Your task to perform on an android device: change the clock style Image 0: 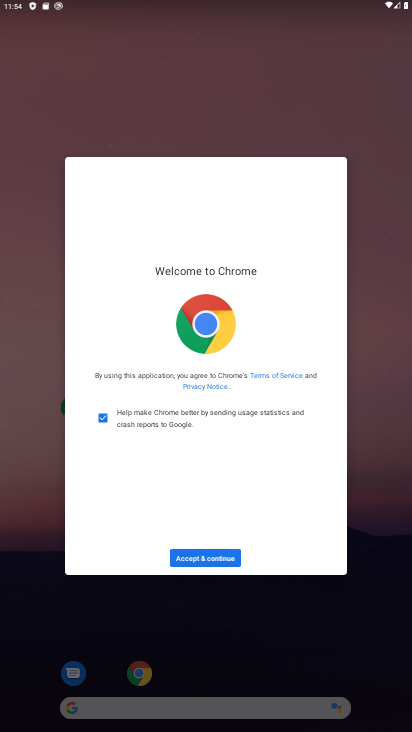
Step 0: click (224, 563)
Your task to perform on an android device: change the clock style Image 1: 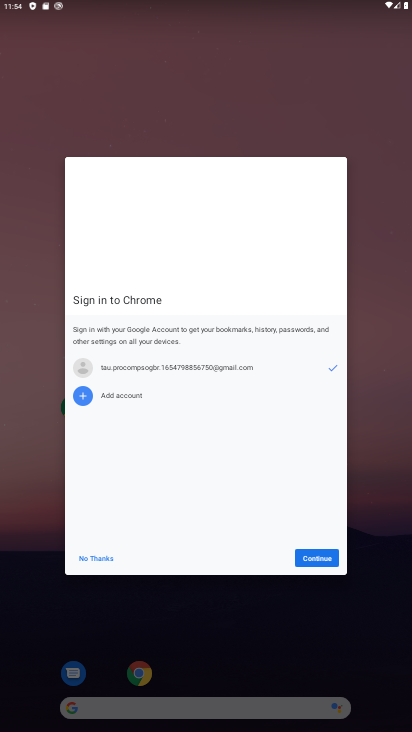
Step 1: click (332, 563)
Your task to perform on an android device: change the clock style Image 2: 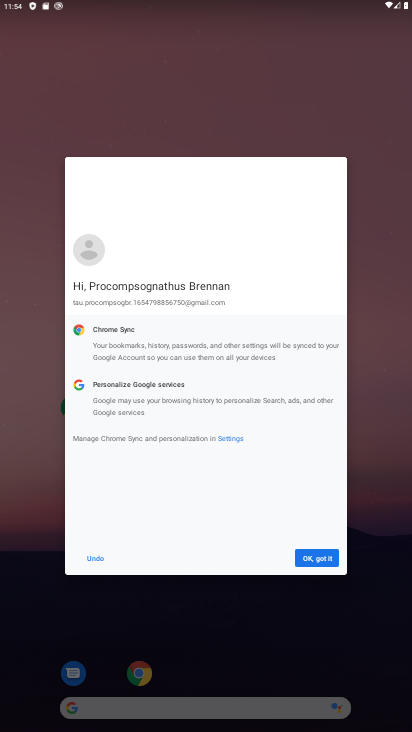
Step 2: click (328, 564)
Your task to perform on an android device: change the clock style Image 3: 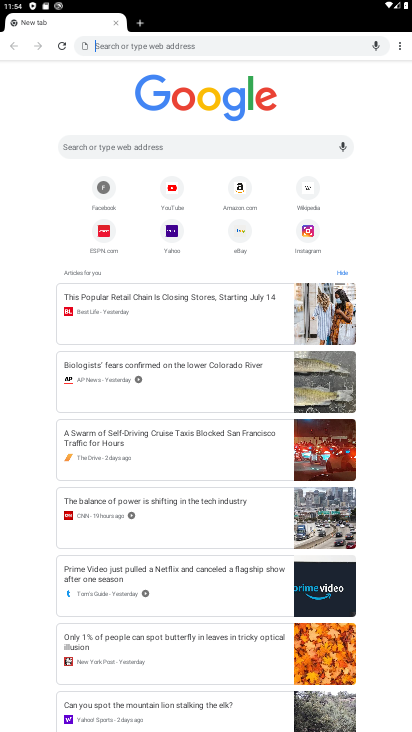
Step 3: press home button
Your task to perform on an android device: change the clock style Image 4: 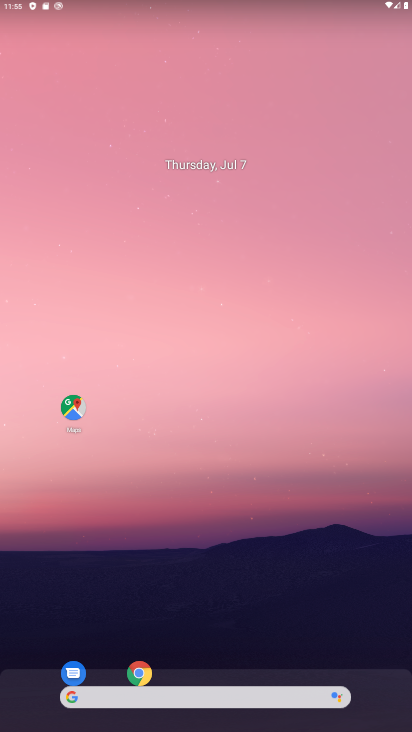
Step 4: drag from (231, 687) to (157, 61)
Your task to perform on an android device: change the clock style Image 5: 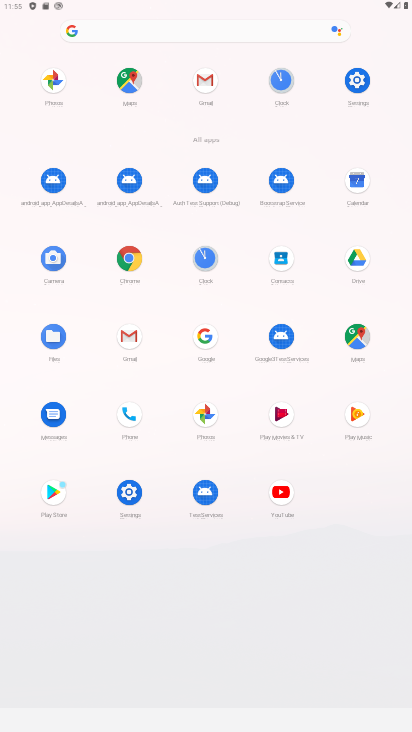
Step 5: click (208, 255)
Your task to perform on an android device: change the clock style Image 6: 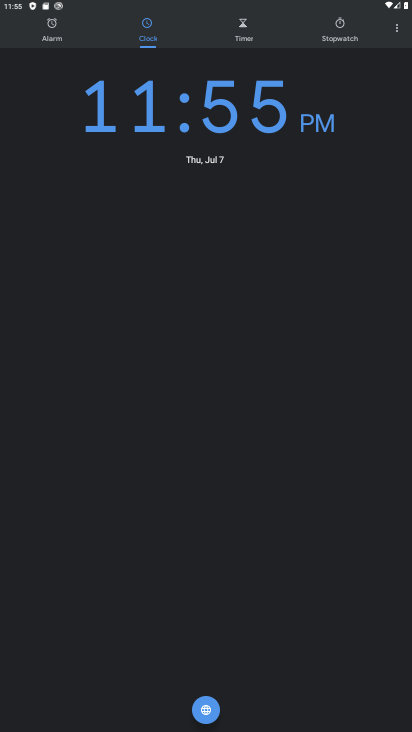
Step 6: click (396, 27)
Your task to perform on an android device: change the clock style Image 7: 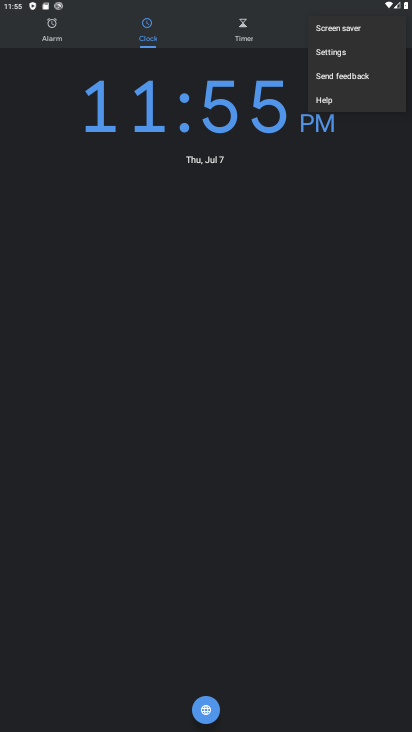
Step 7: click (329, 50)
Your task to perform on an android device: change the clock style Image 8: 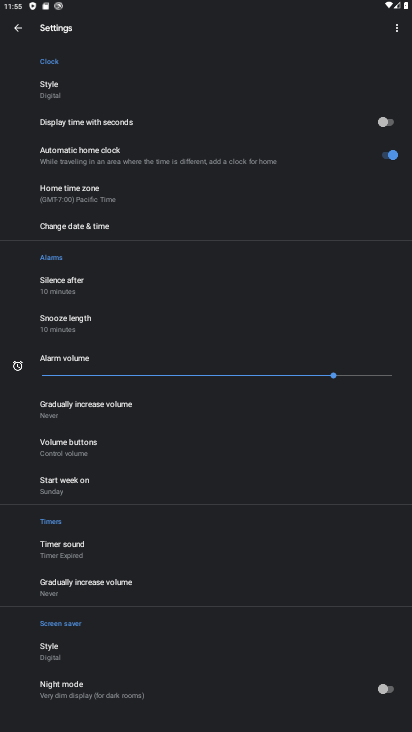
Step 8: click (38, 94)
Your task to perform on an android device: change the clock style Image 9: 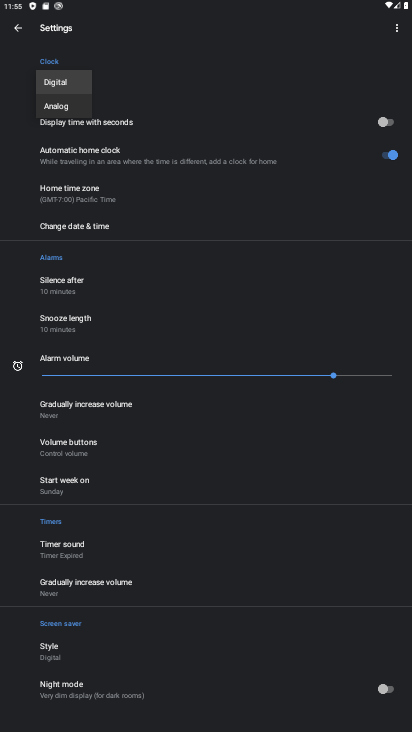
Step 9: click (61, 105)
Your task to perform on an android device: change the clock style Image 10: 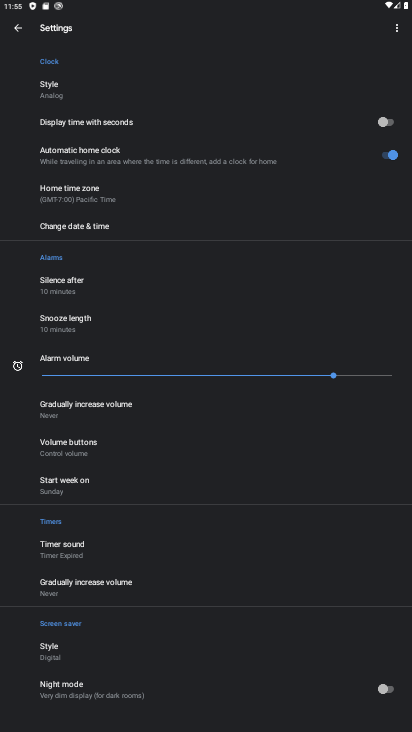
Step 10: task complete